Your task to perform on an android device: Open Chrome and go to the settings page Image 0: 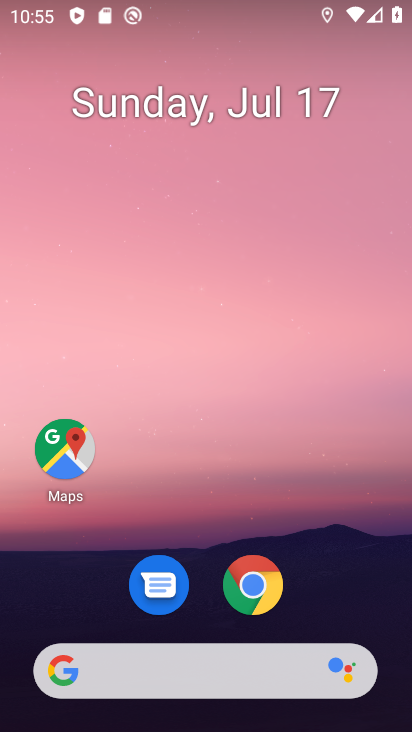
Step 0: click (256, 591)
Your task to perform on an android device: Open Chrome and go to the settings page Image 1: 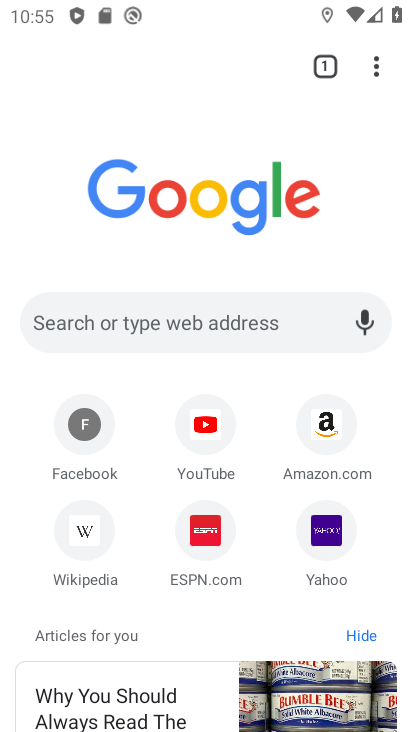
Step 1: click (376, 64)
Your task to perform on an android device: Open Chrome and go to the settings page Image 2: 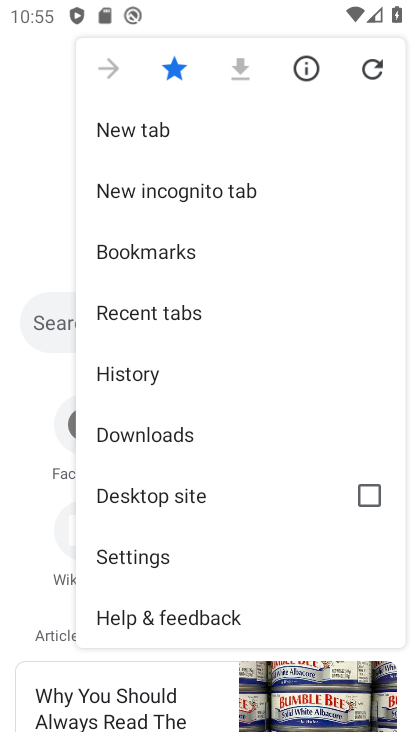
Step 2: click (152, 547)
Your task to perform on an android device: Open Chrome and go to the settings page Image 3: 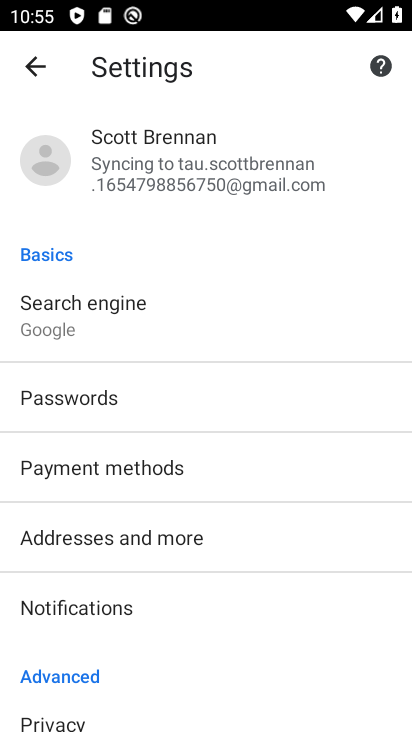
Step 3: task complete